Your task to perform on an android device: Go to settings Image 0: 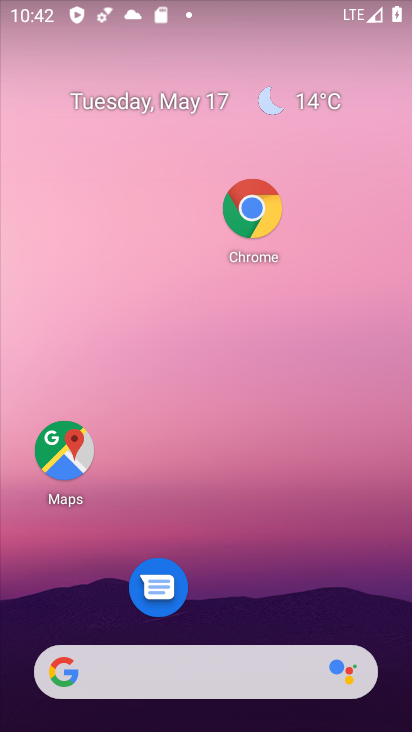
Step 0: drag from (268, 587) to (301, 80)
Your task to perform on an android device: Go to settings Image 1: 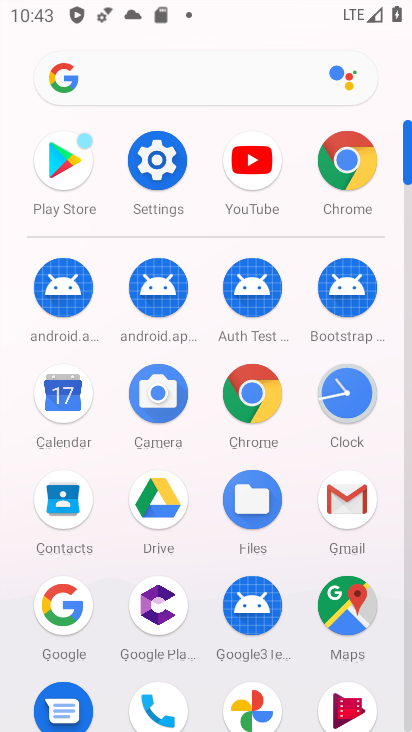
Step 1: click (172, 160)
Your task to perform on an android device: Go to settings Image 2: 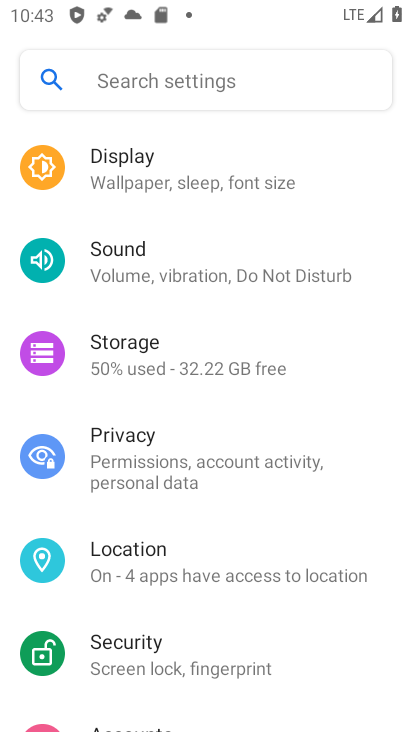
Step 2: task complete